Your task to perform on an android device: turn on sleep mode Image 0: 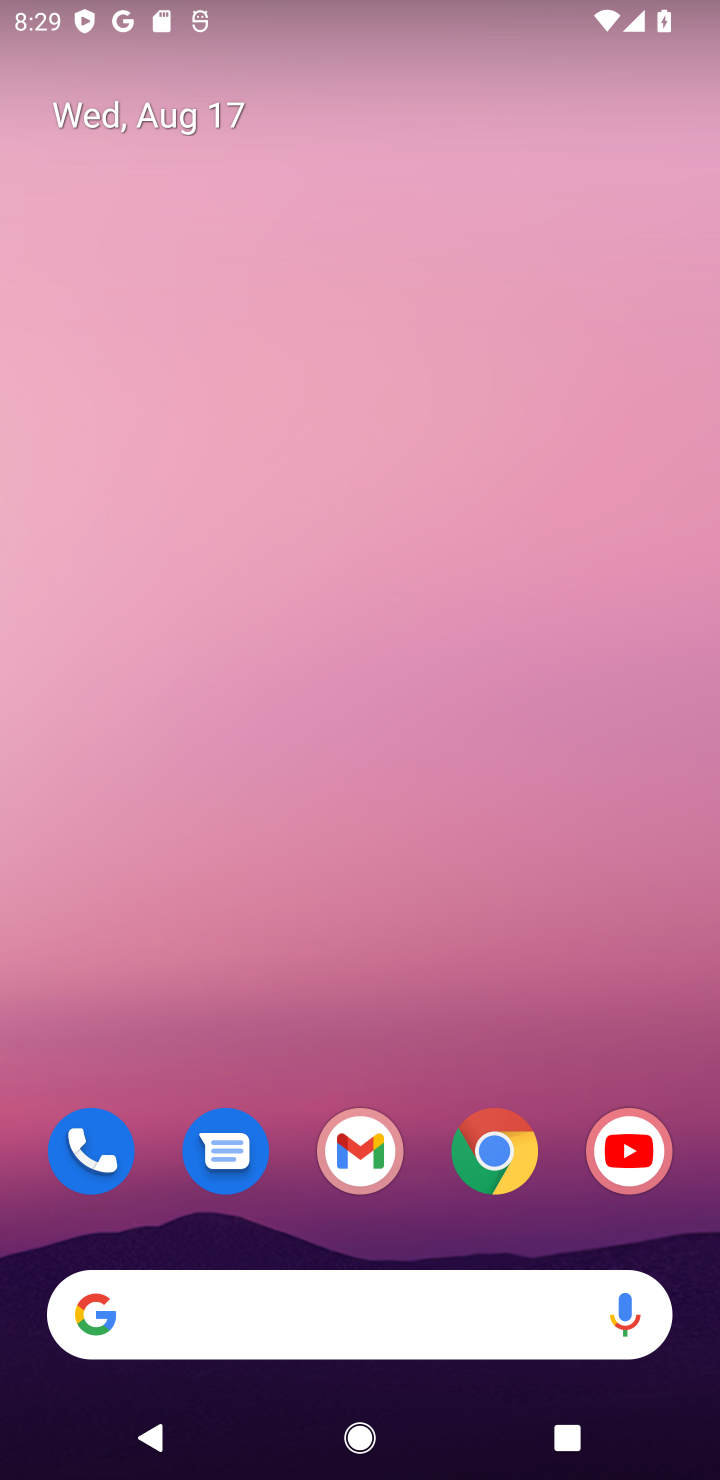
Step 0: drag from (346, 599) to (359, 269)
Your task to perform on an android device: turn on sleep mode Image 1: 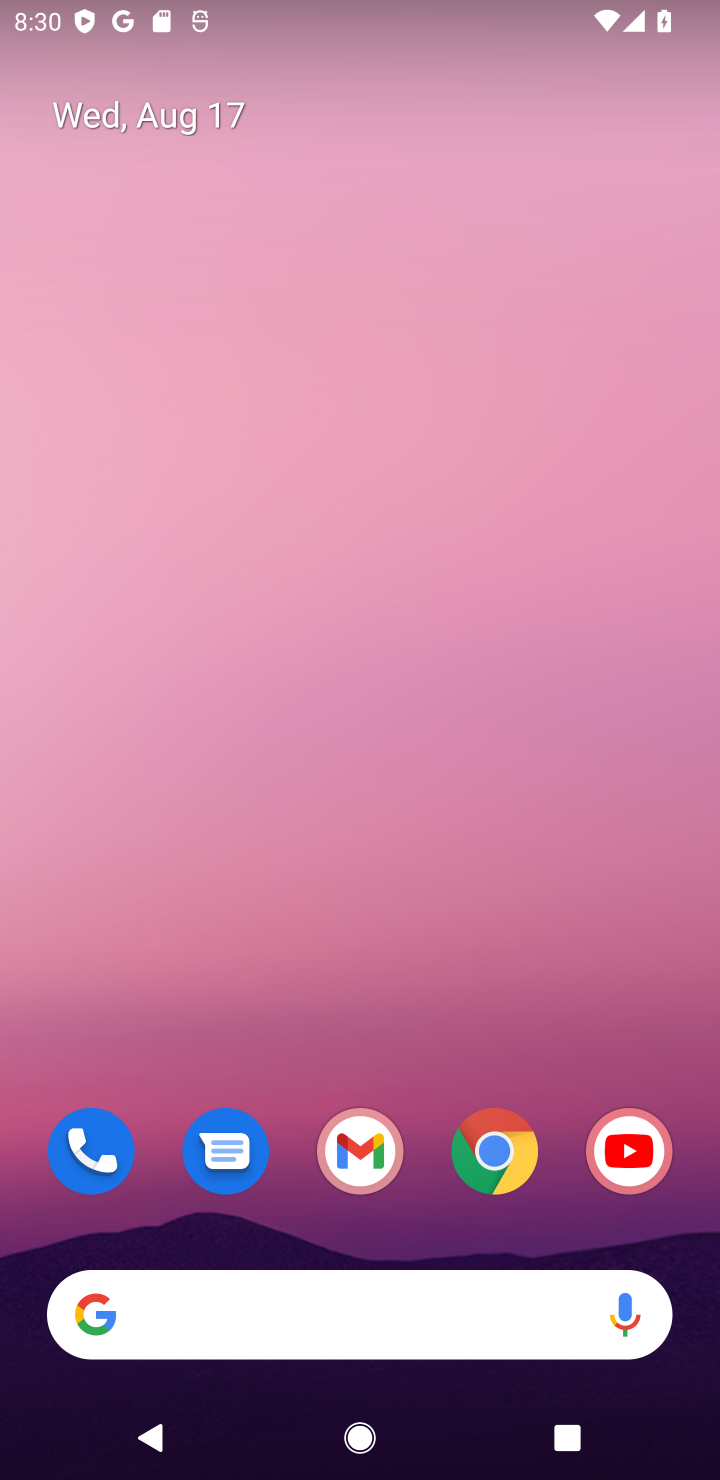
Step 1: drag from (367, 1113) to (327, 106)
Your task to perform on an android device: turn on sleep mode Image 2: 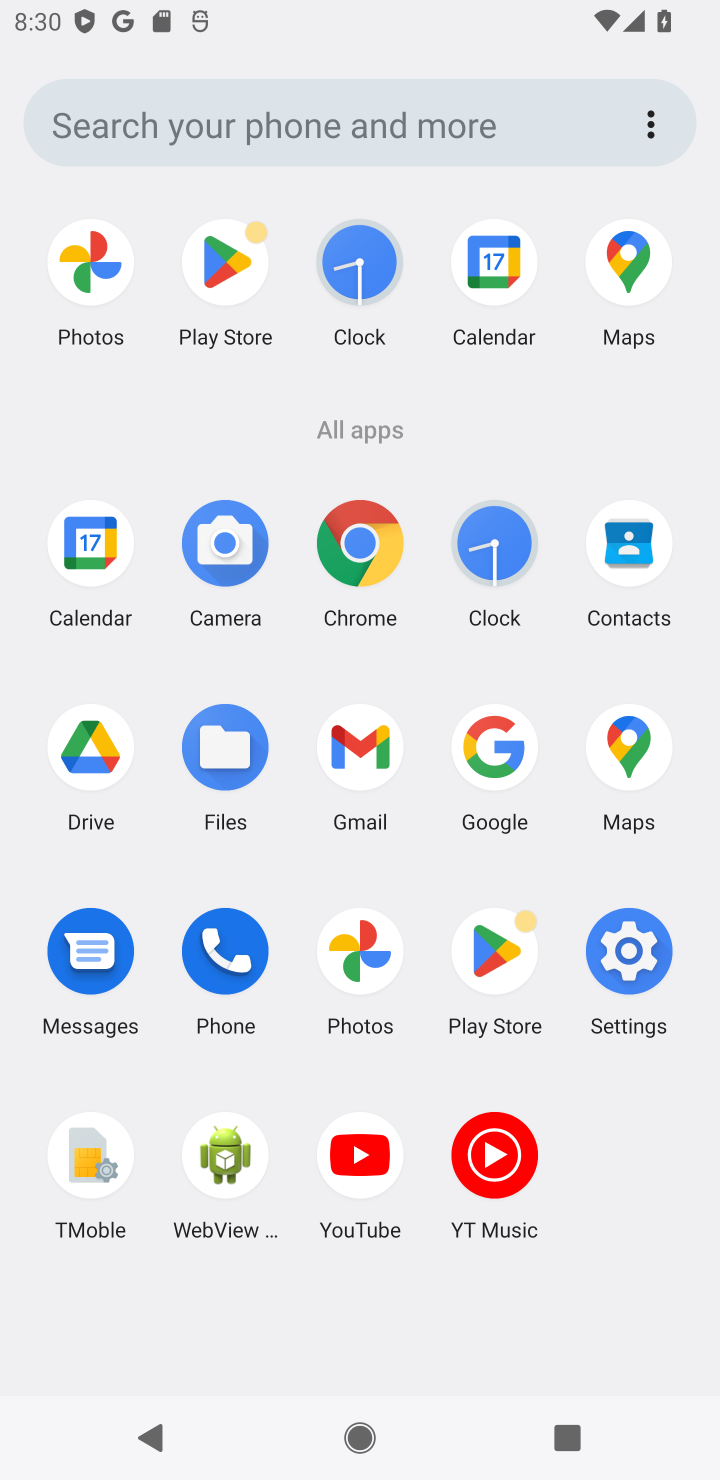
Step 2: click (611, 961)
Your task to perform on an android device: turn on sleep mode Image 3: 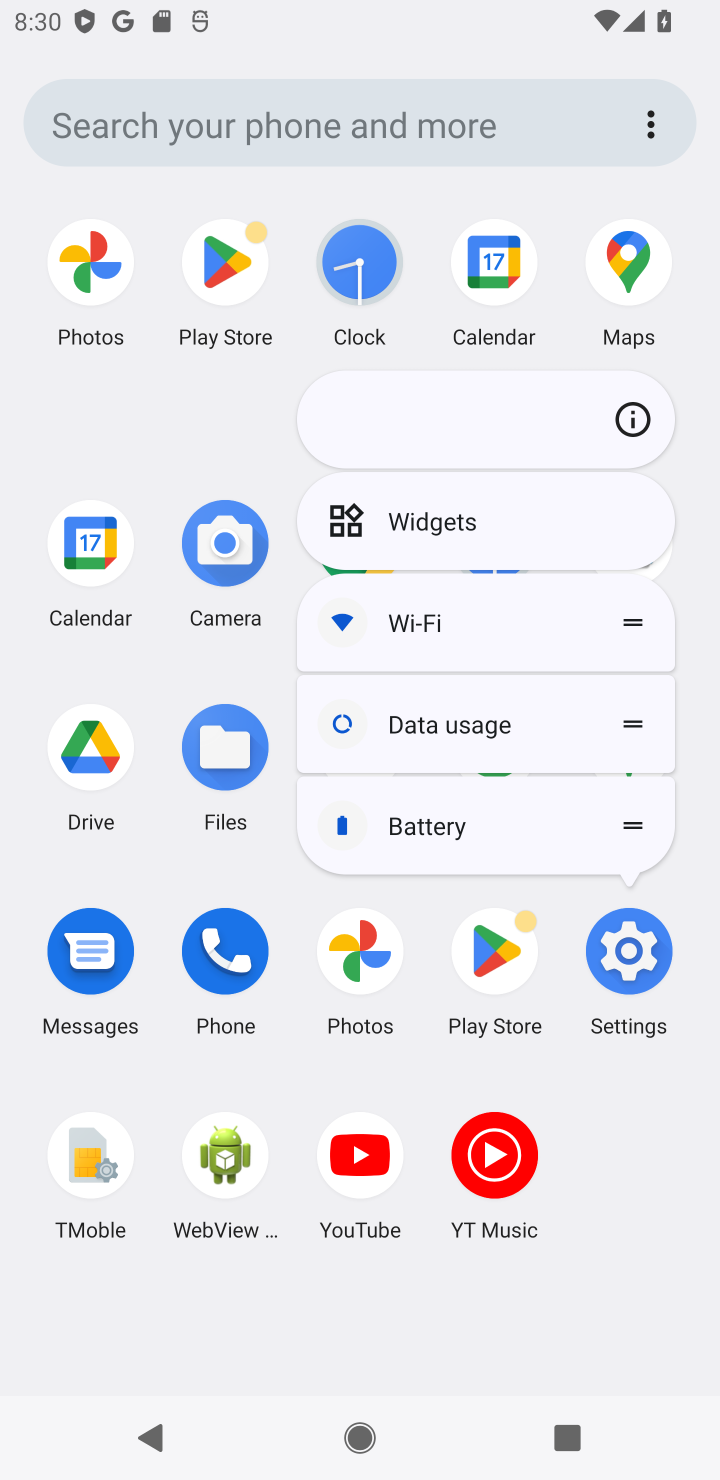
Step 3: click (619, 960)
Your task to perform on an android device: turn on sleep mode Image 4: 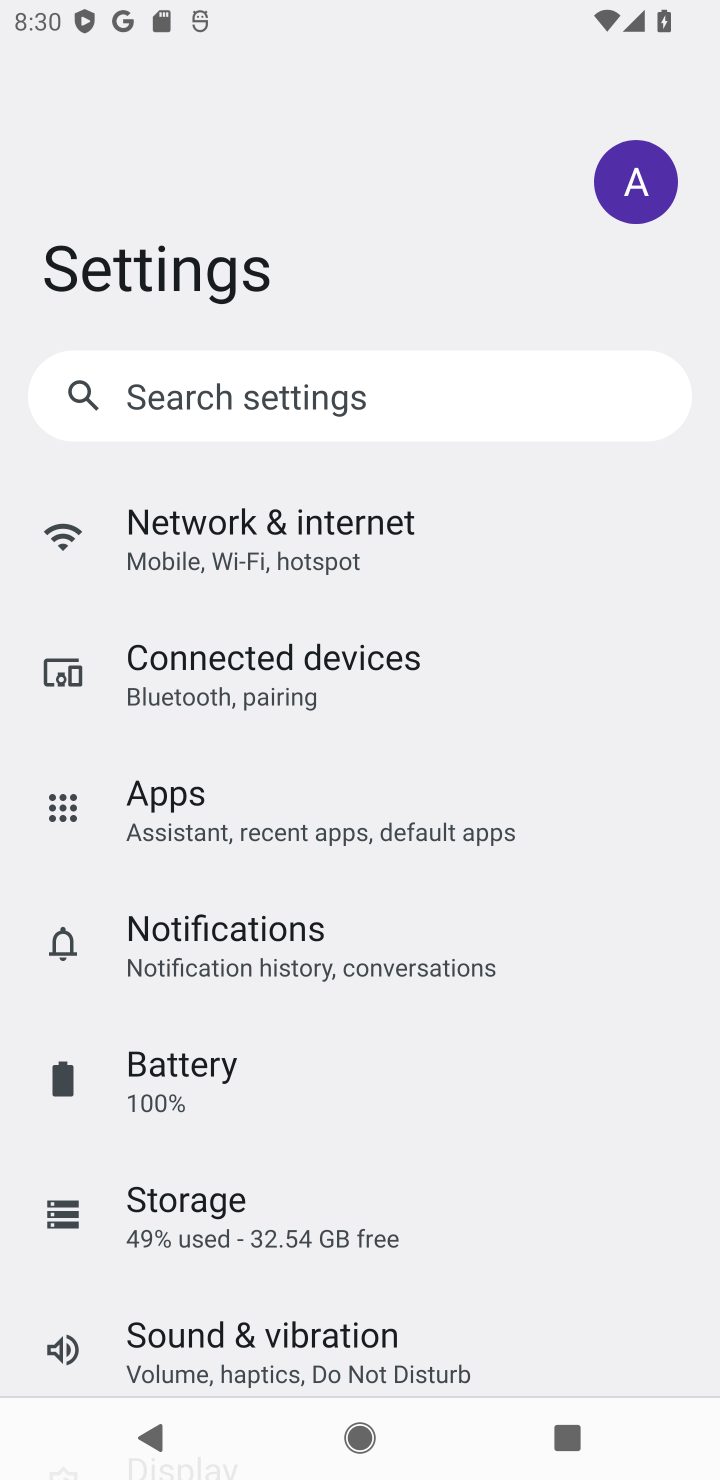
Step 4: task complete